Your task to perform on an android device: turn off javascript in the chrome app Image 0: 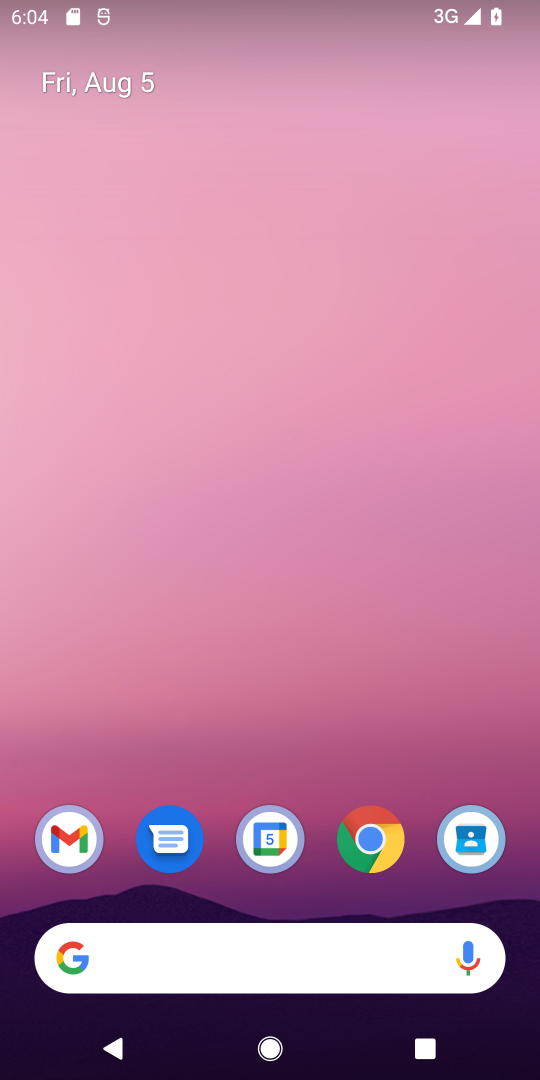
Step 0: click (366, 846)
Your task to perform on an android device: turn off javascript in the chrome app Image 1: 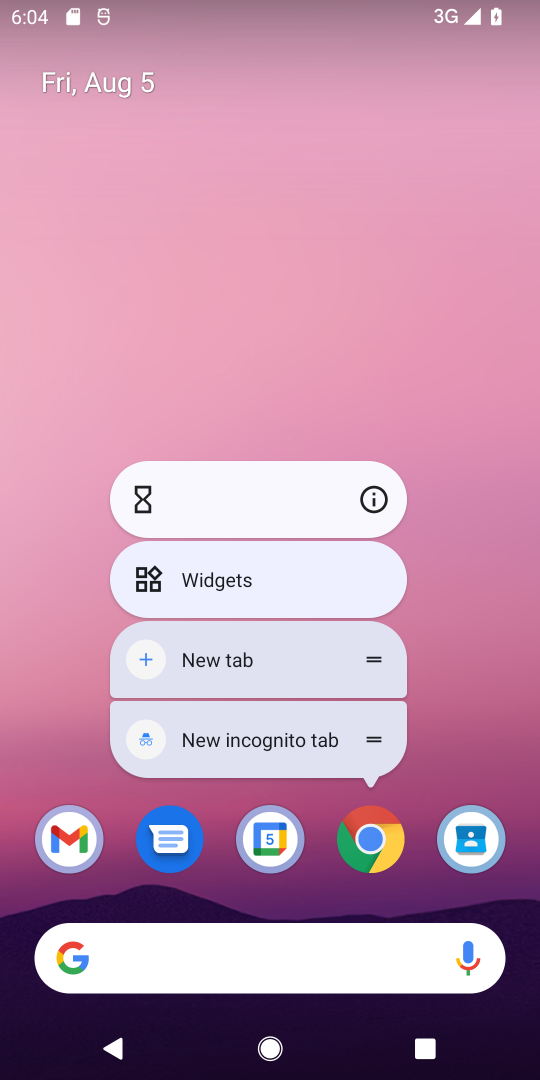
Step 1: click (374, 843)
Your task to perform on an android device: turn off javascript in the chrome app Image 2: 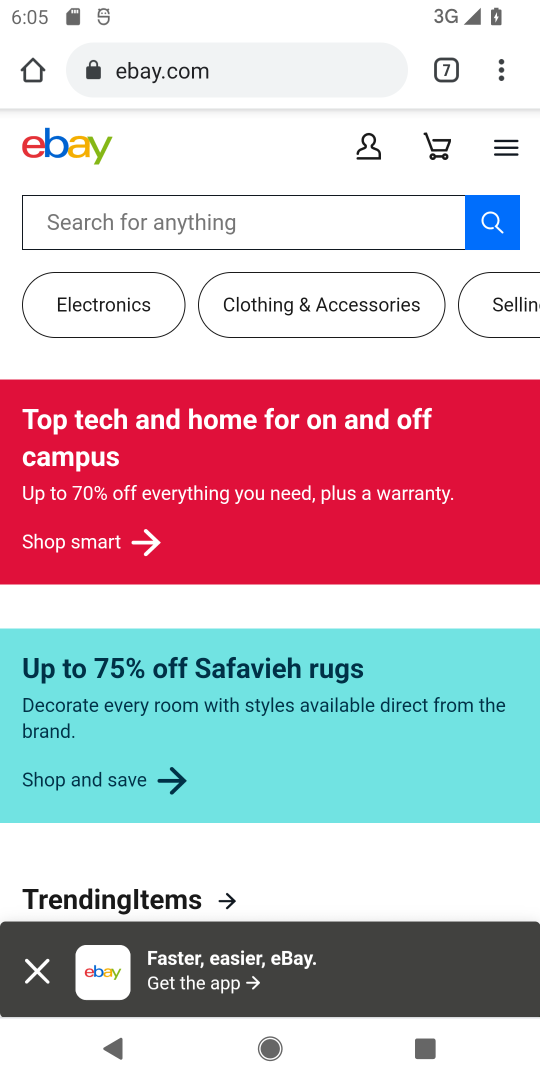
Step 2: click (508, 71)
Your task to perform on an android device: turn off javascript in the chrome app Image 3: 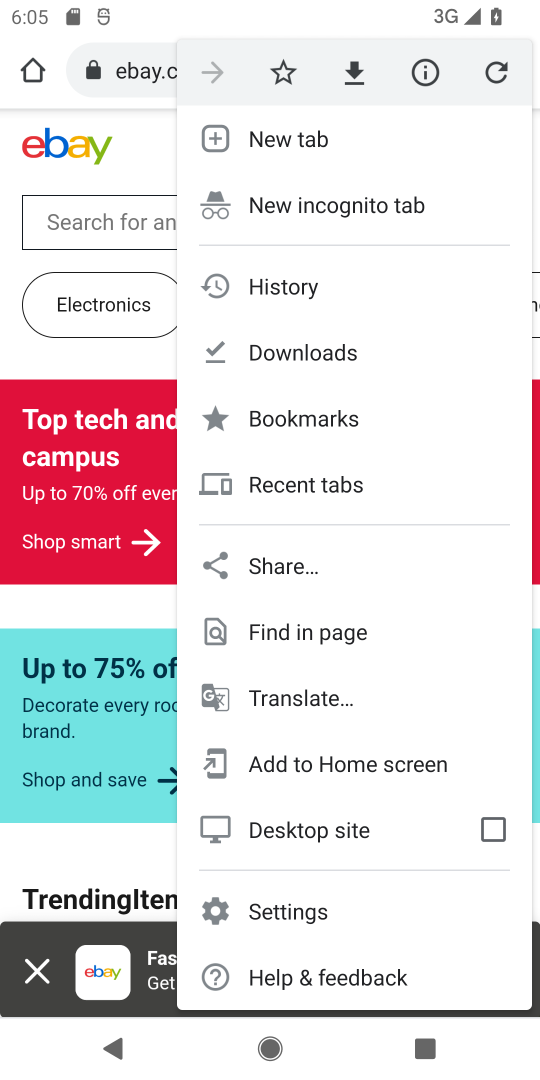
Step 3: click (318, 912)
Your task to perform on an android device: turn off javascript in the chrome app Image 4: 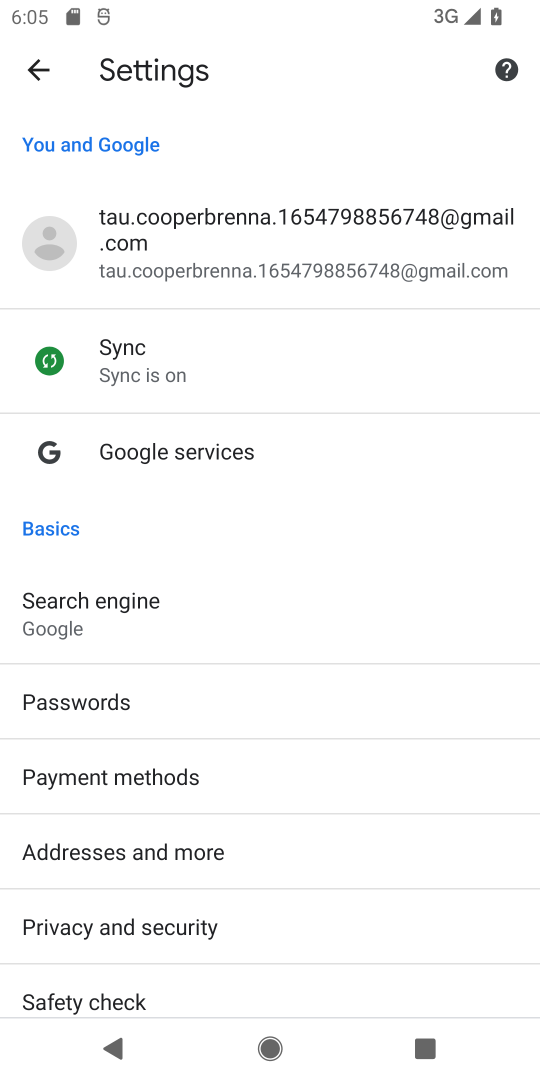
Step 4: drag from (261, 880) to (278, 341)
Your task to perform on an android device: turn off javascript in the chrome app Image 5: 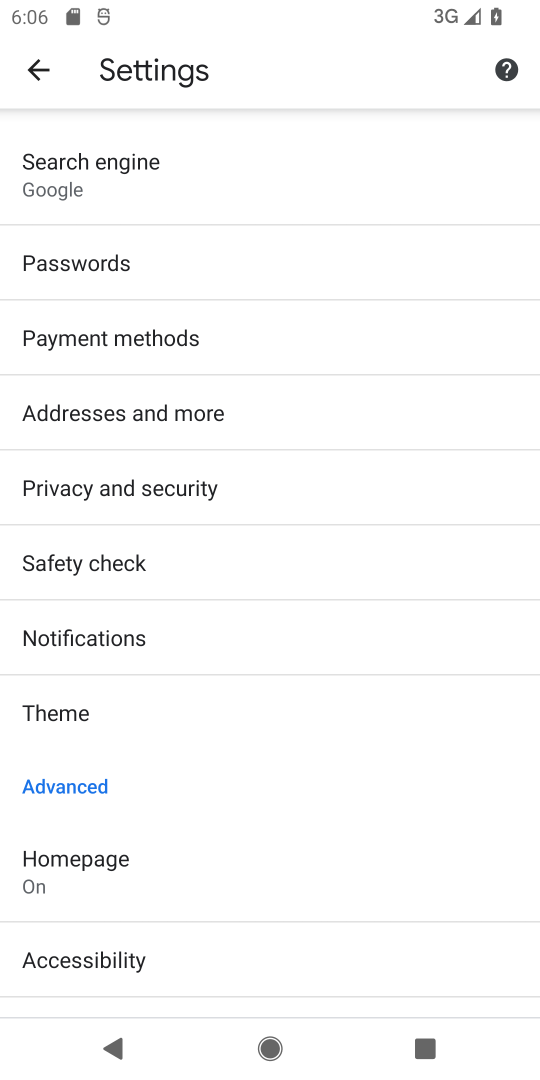
Step 5: drag from (227, 912) to (238, 316)
Your task to perform on an android device: turn off javascript in the chrome app Image 6: 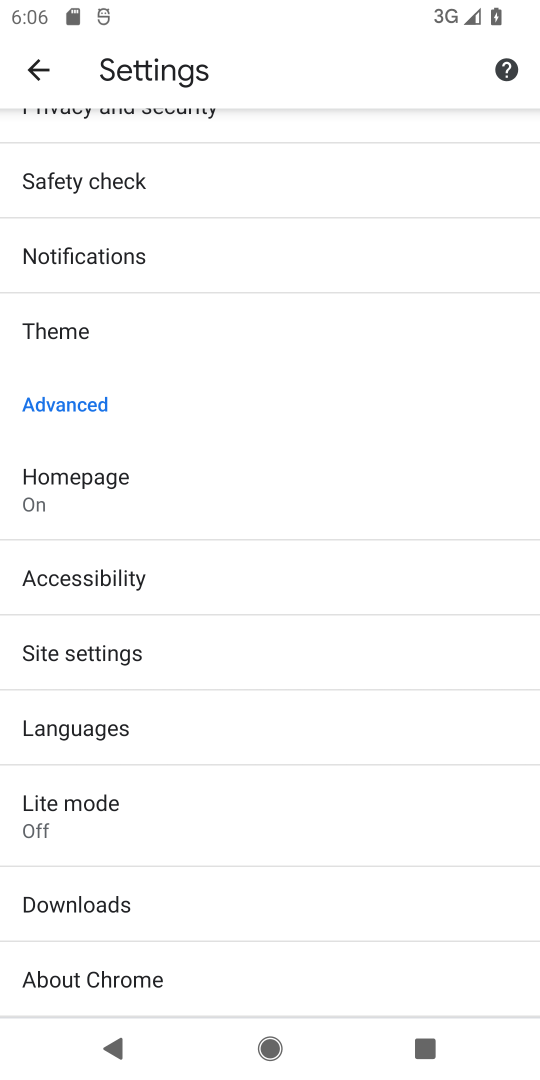
Step 6: click (125, 655)
Your task to perform on an android device: turn off javascript in the chrome app Image 7: 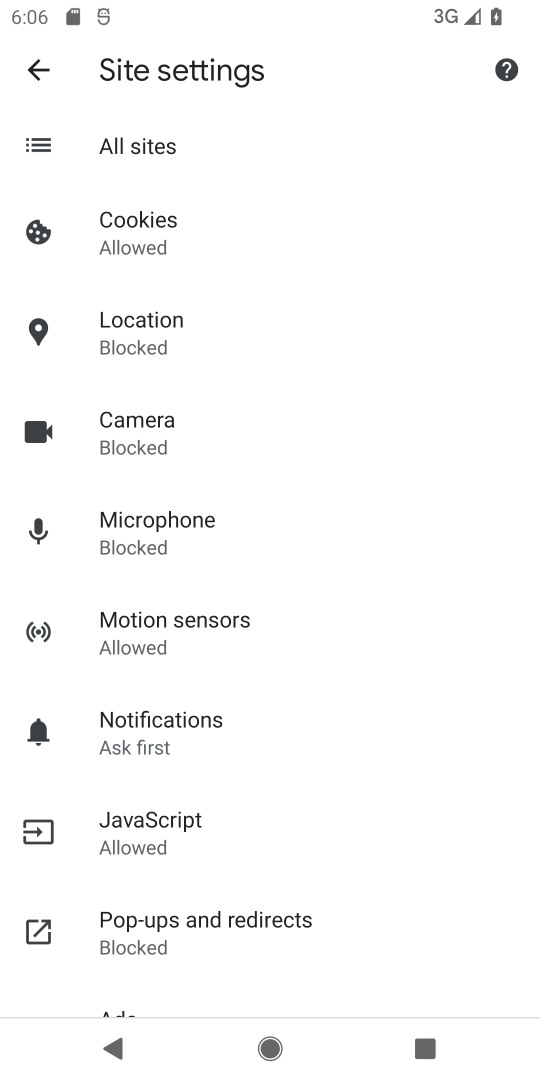
Step 7: click (261, 815)
Your task to perform on an android device: turn off javascript in the chrome app Image 8: 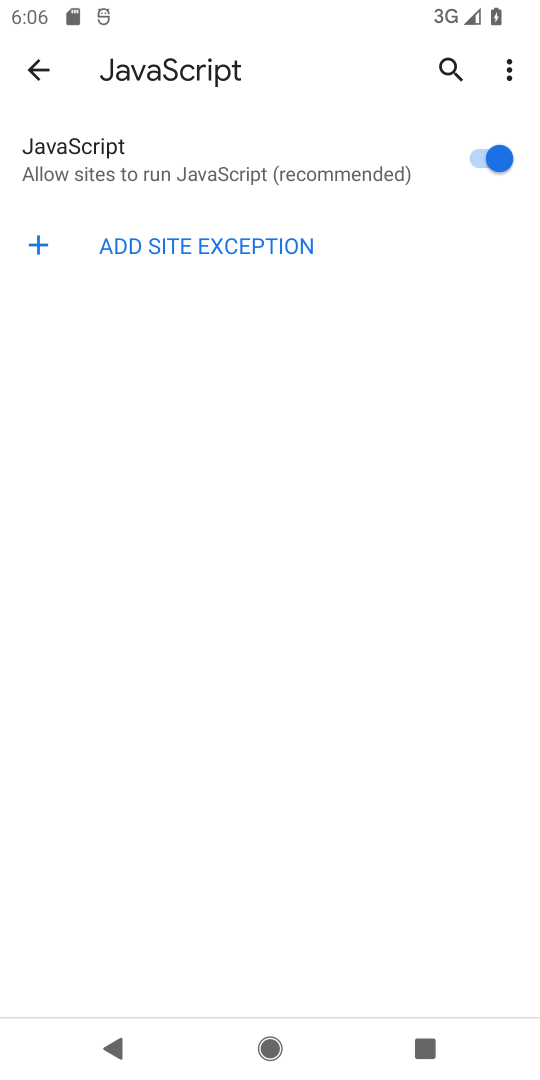
Step 8: click (480, 156)
Your task to perform on an android device: turn off javascript in the chrome app Image 9: 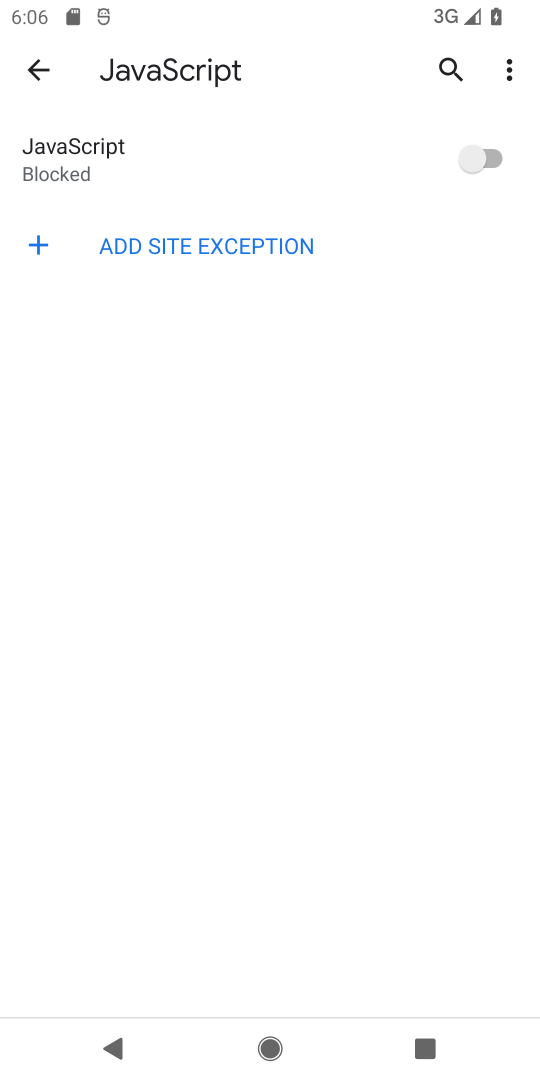
Step 9: task complete